Your task to perform on an android device: manage bookmarks in the chrome app Image 0: 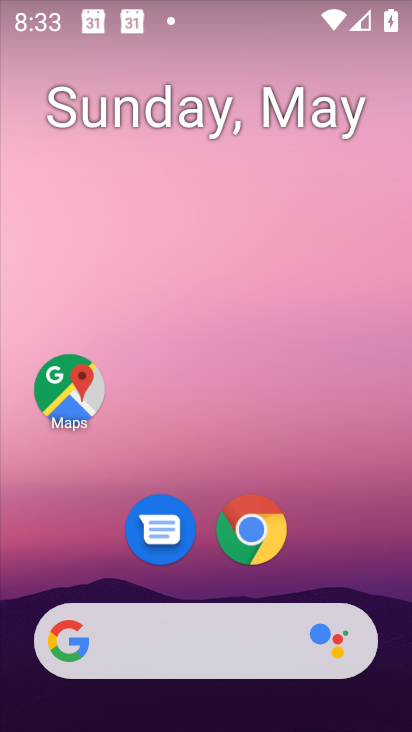
Step 0: click (261, 552)
Your task to perform on an android device: manage bookmarks in the chrome app Image 1: 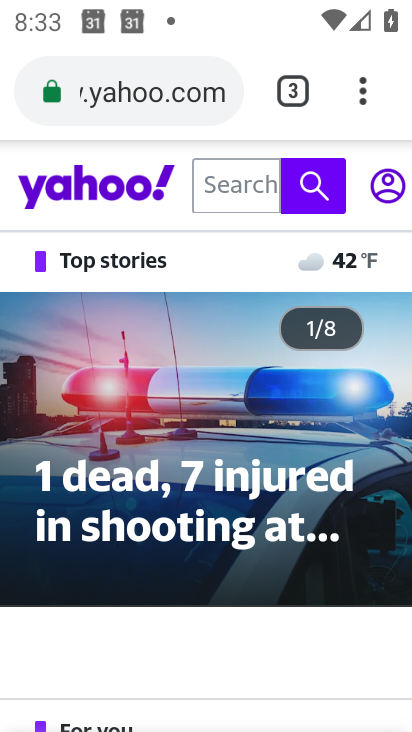
Step 1: click (356, 108)
Your task to perform on an android device: manage bookmarks in the chrome app Image 2: 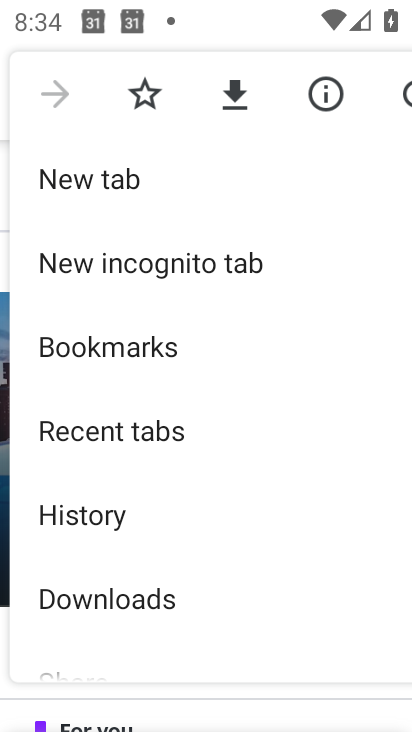
Step 2: task complete